Your task to perform on an android device: Open notification settings Image 0: 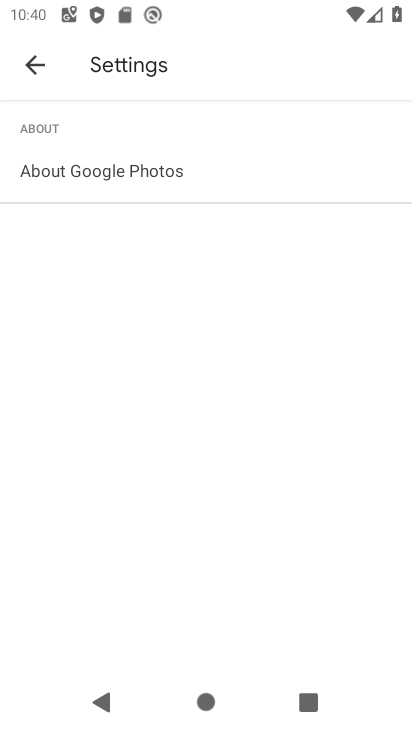
Step 0: press home button
Your task to perform on an android device: Open notification settings Image 1: 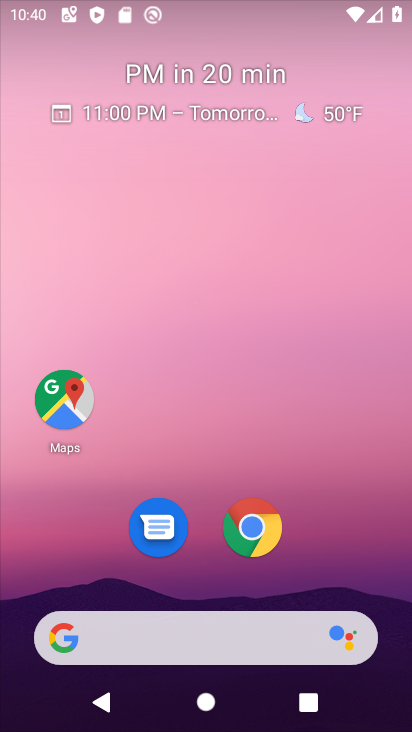
Step 1: drag from (354, 543) to (316, 121)
Your task to perform on an android device: Open notification settings Image 2: 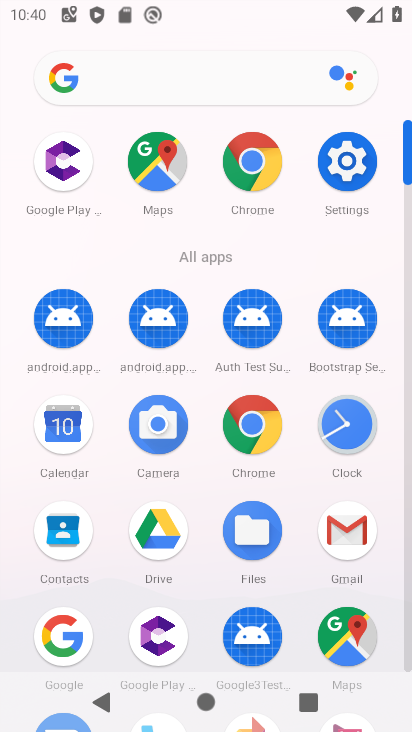
Step 2: click (341, 162)
Your task to perform on an android device: Open notification settings Image 3: 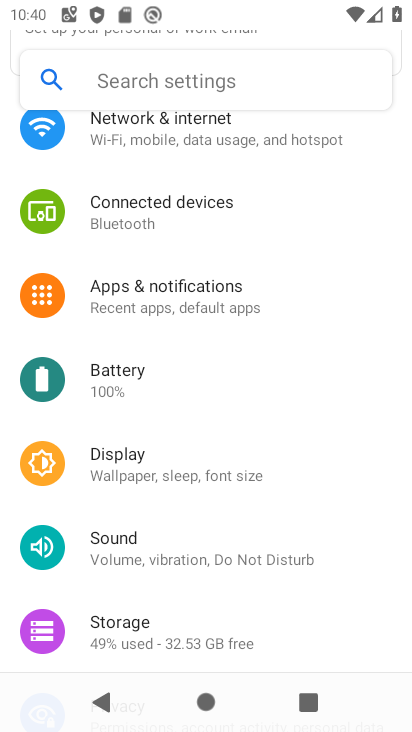
Step 3: click (211, 303)
Your task to perform on an android device: Open notification settings Image 4: 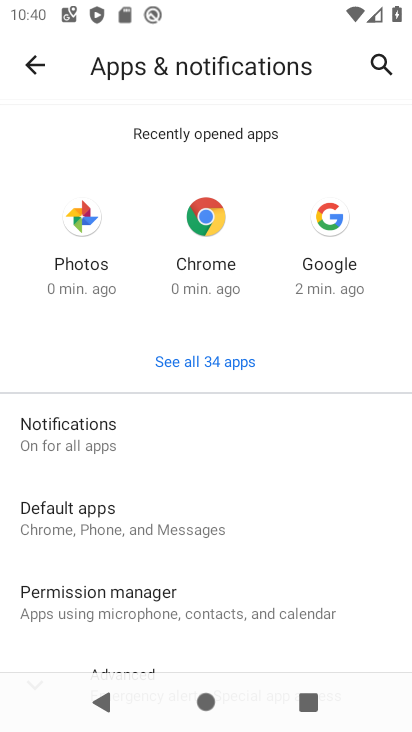
Step 4: click (135, 454)
Your task to perform on an android device: Open notification settings Image 5: 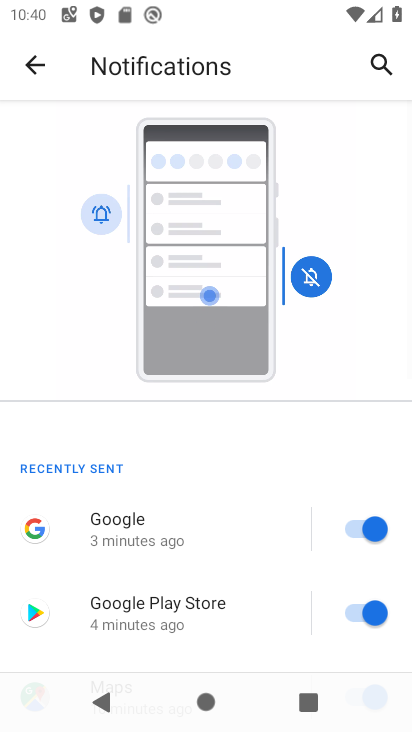
Step 5: drag from (235, 626) to (316, 200)
Your task to perform on an android device: Open notification settings Image 6: 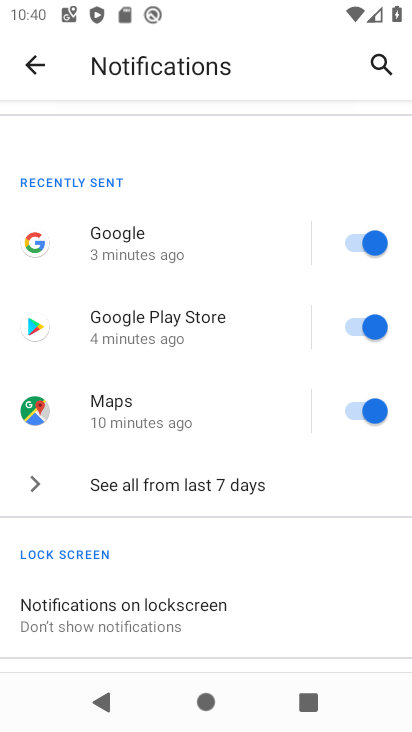
Step 6: drag from (280, 624) to (336, 298)
Your task to perform on an android device: Open notification settings Image 7: 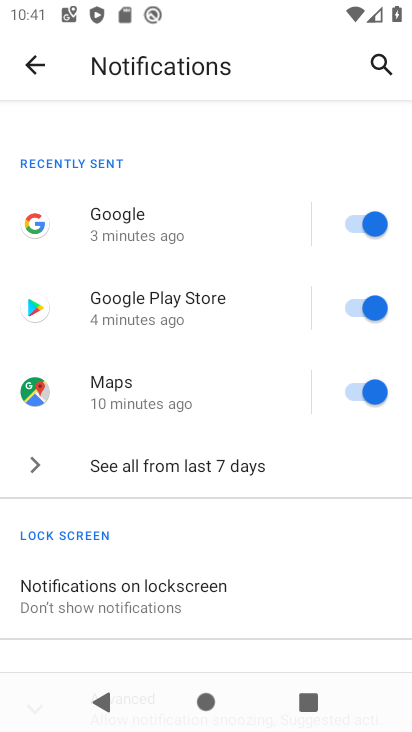
Step 7: drag from (271, 616) to (268, 356)
Your task to perform on an android device: Open notification settings Image 8: 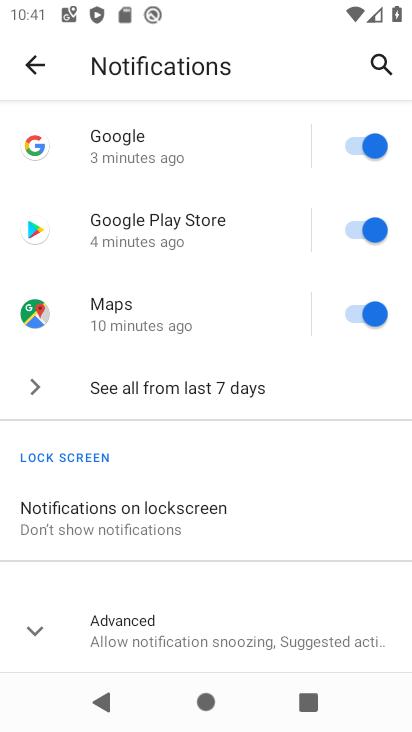
Step 8: click (260, 636)
Your task to perform on an android device: Open notification settings Image 9: 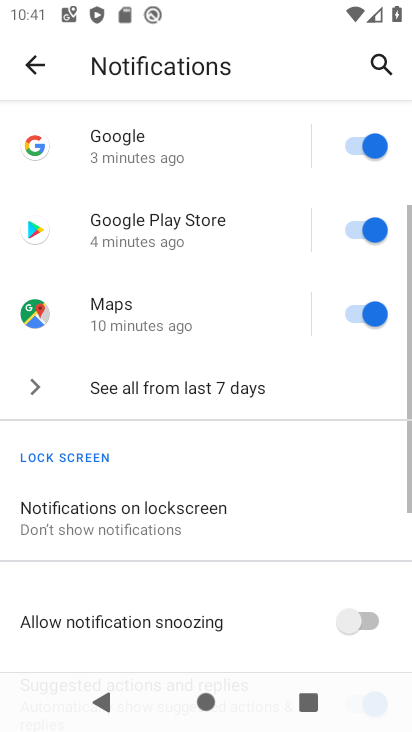
Step 9: task complete